Your task to perform on an android device: Do I have any events this weekend? Image 0: 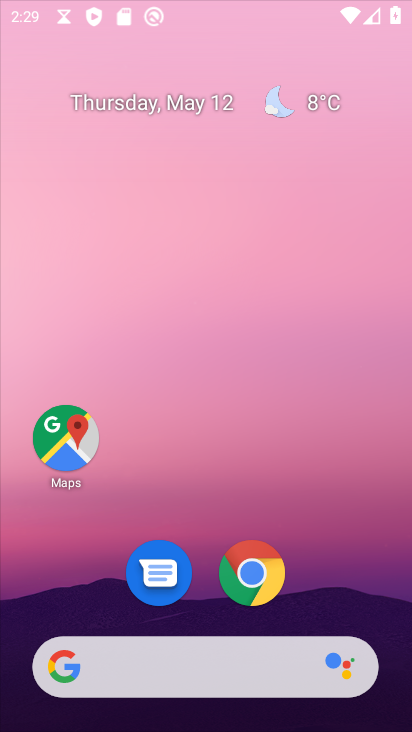
Step 0: click (289, 482)
Your task to perform on an android device: Do I have any events this weekend? Image 1: 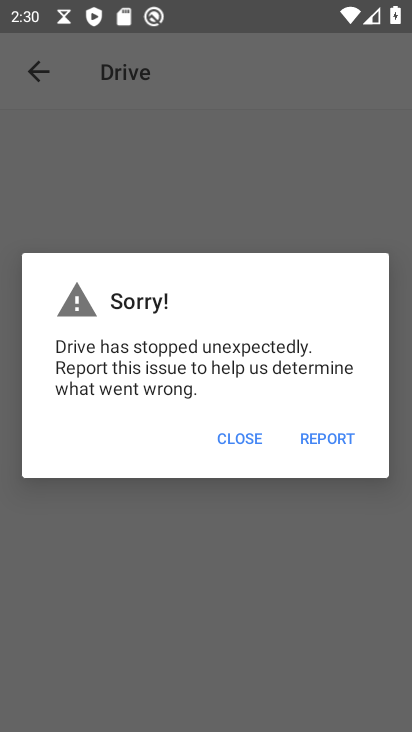
Step 1: drag from (318, 16) to (348, 58)
Your task to perform on an android device: Do I have any events this weekend? Image 2: 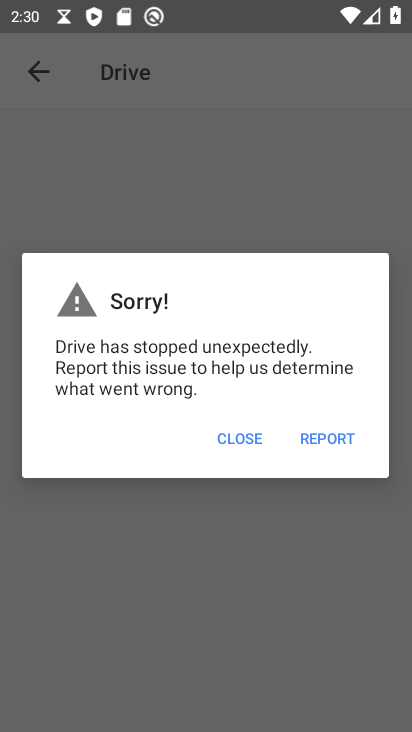
Step 2: press home button
Your task to perform on an android device: Do I have any events this weekend? Image 3: 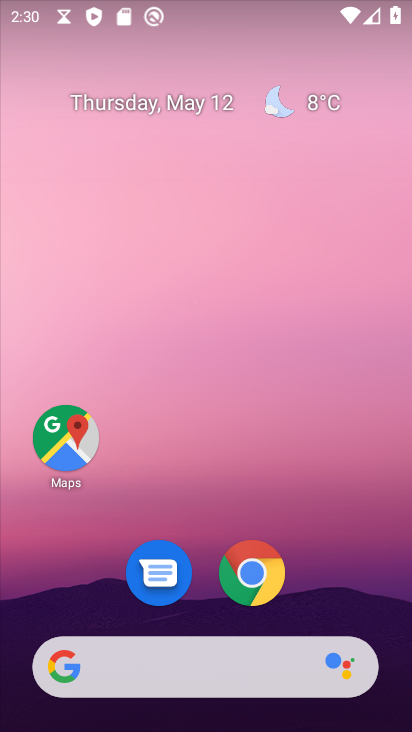
Step 3: drag from (309, 587) to (340, 180)
Your task to perform on an android device: Do I have any events this weekend? Image 4: 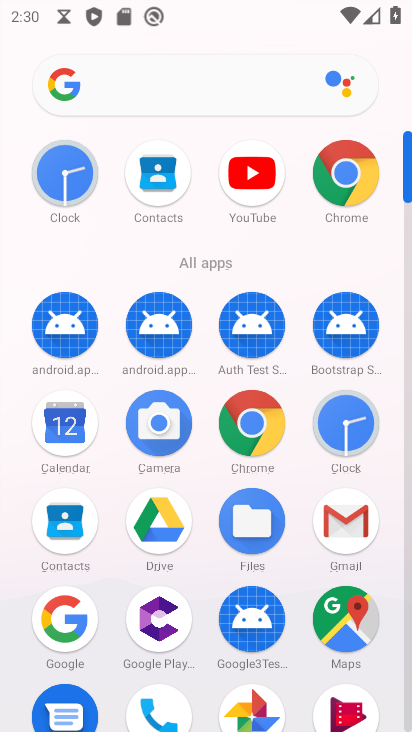
Step 4: click (58, 420)
Your task to perform on an android device: Do I have any events this weekend? Image 5: 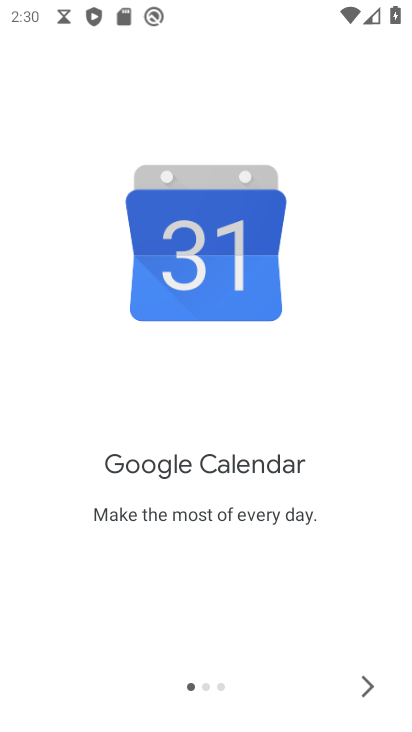
Step 5: click (366, 675)
Your task to perform on an android device: Do I have any events this weekend? Image 6: 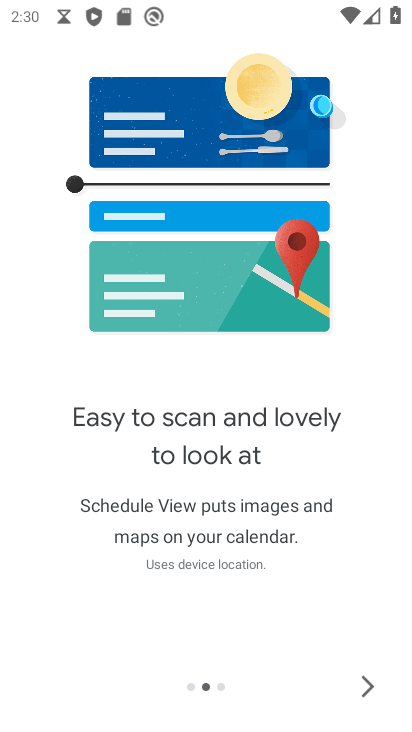
Step 6: click (366, 675)
Your task to perform on an android device: Do I have any events this weekend? Image 7: 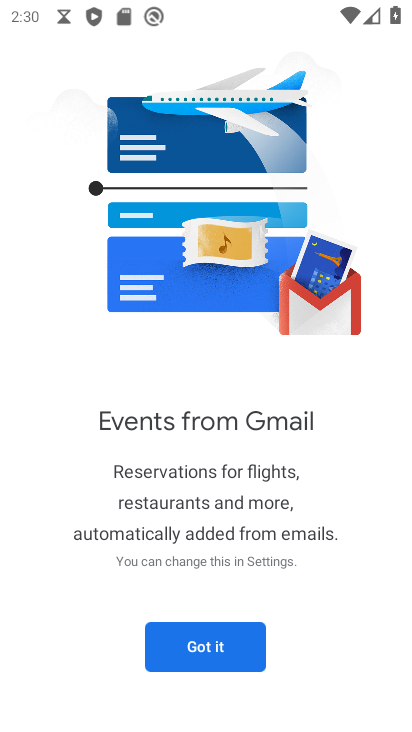
Step 7: click (366, 675)
Your task to perform on an android device: Do I have any events this weekend? Image 8: 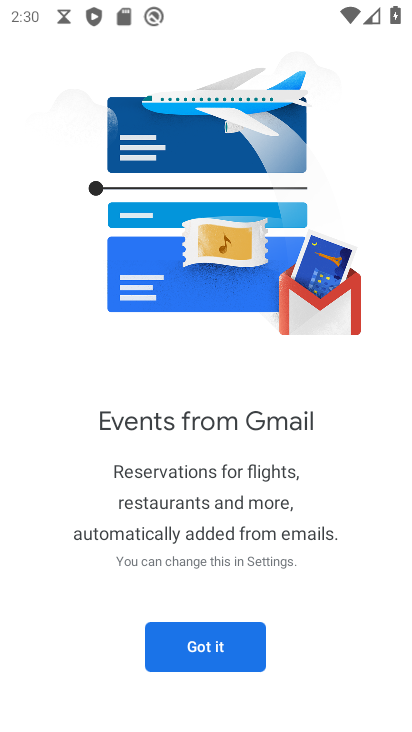
Step 8: click (249, 645)
Your task to perform on an android device: Do I have any events this weekend? Image 9: 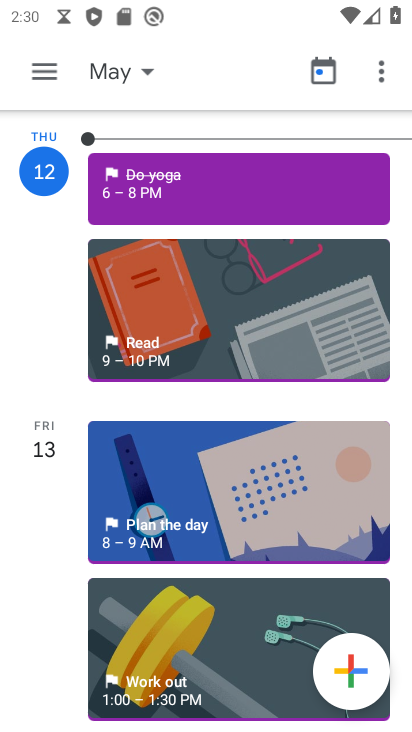
Step 9: click (144, 70)
Your task to perform on an android device: Do I have any events this weekend? Image 10: 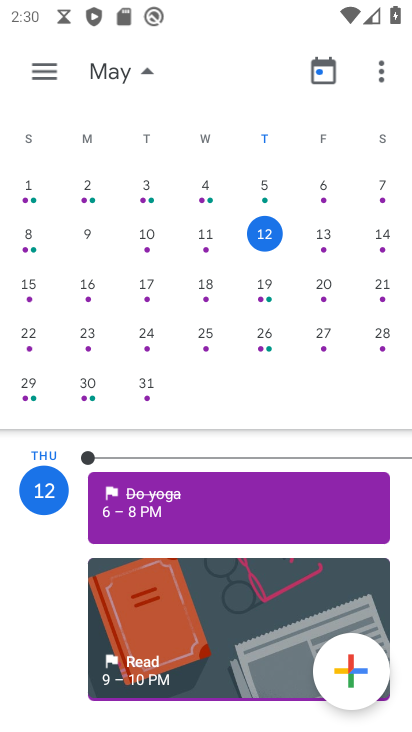
Step 10: click (49, 64)
Your task to perform on an android device: Do I have any events this weekend? Image 11: 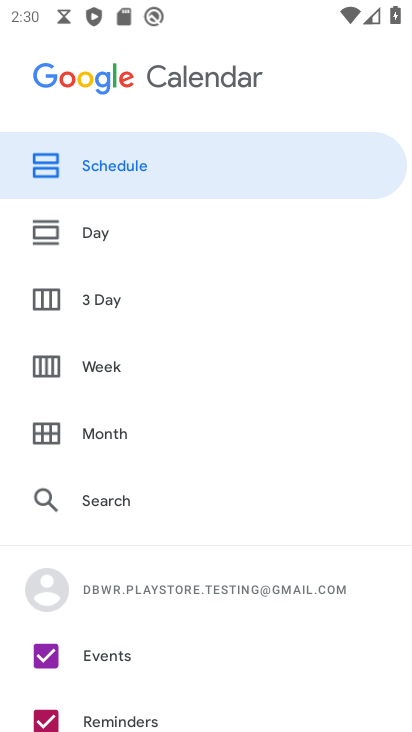
Step 11: click (43, 69)
Your task to perform on an android device: Do I have any events this weekend? Image 12: 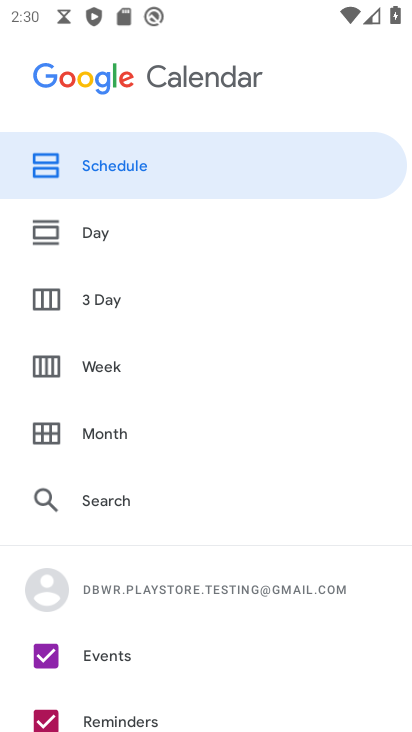
Step 12: click (110, 163)
Your task to perform on an android device: Do I have any events this weekend? Image 13: 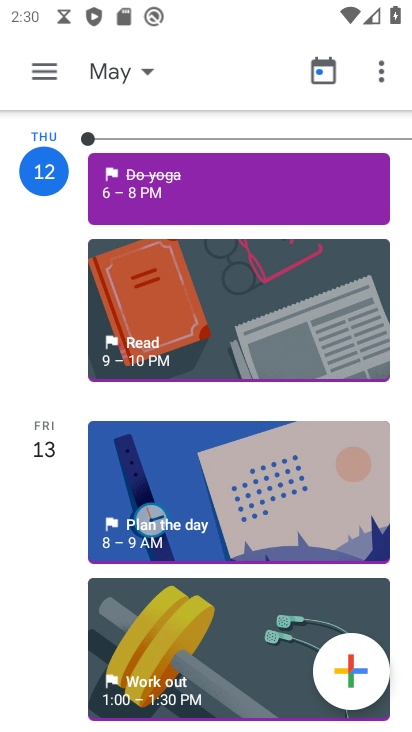
Step 13: task complete